Your task to perform on an android device: Turn on the flashlight Image 0: 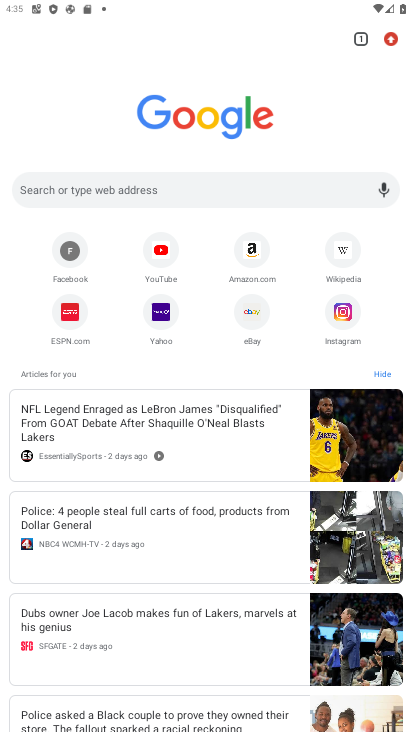
Step 0: press home button
Your task to perform on an android device: Turn on the flashlight Image 1: 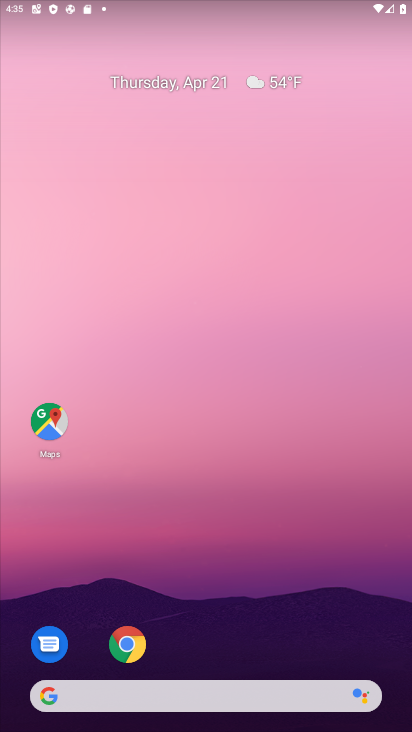
Step 1: drag from (227, 6) to (239, 310)
Your task to perform on an android device: Turn on the flashlight Image 2: 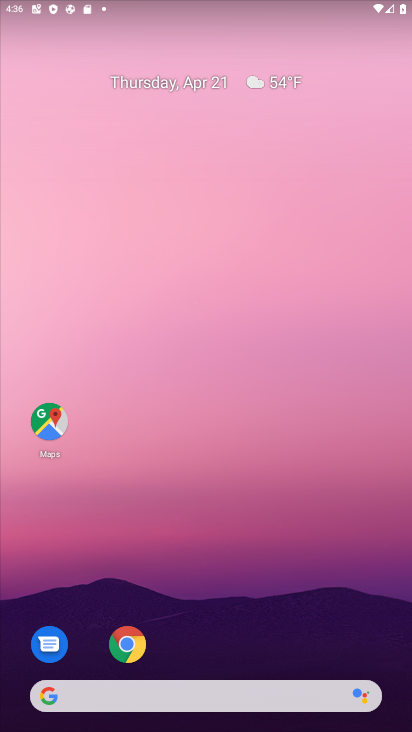
Step 2: drag from (223, 0) to (216, 410)
Your task to perform on an android device: Turn on the flashlight Image 3: 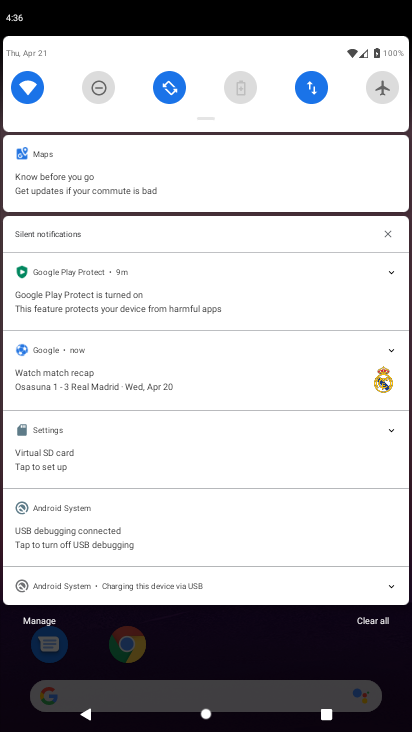
Step 3: click (361, 620)
Your task to perform on an android device: Turn on the flashlight Image 4: 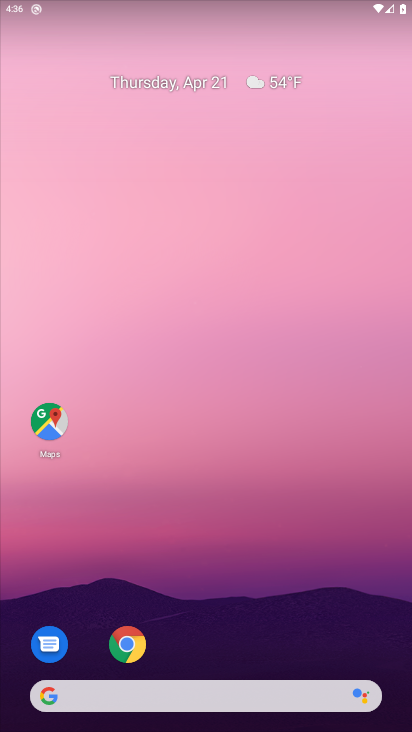
Step 4: drag from (200, 15) to (200, 473)
Your task to perform on an android device: Turn on the flashlight Image 5: 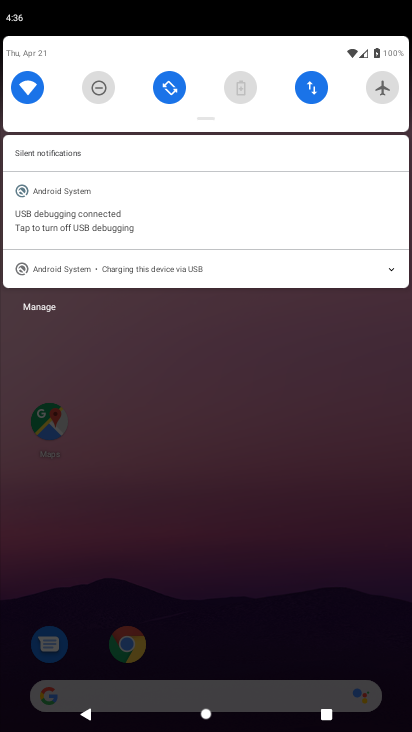
Step 5: drag from (194, 175) to (191, 454)
Your task to perform on an android device: Turn on the flashlight Image 6: 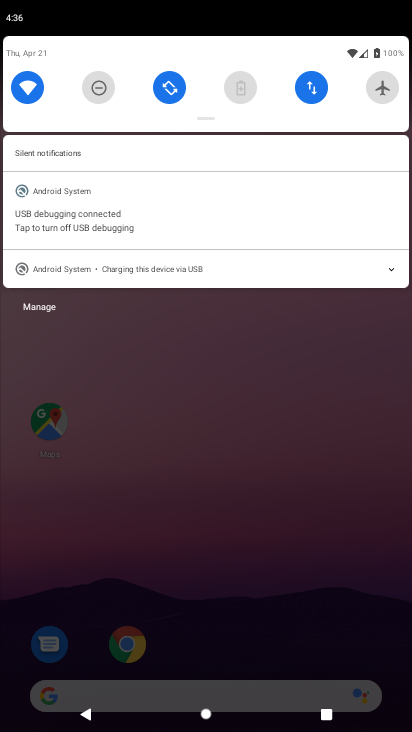
Step 6: drag from (199, 92) to (206, 499)
Your task to perform on an android device: Turn on the flashlight Image 7: 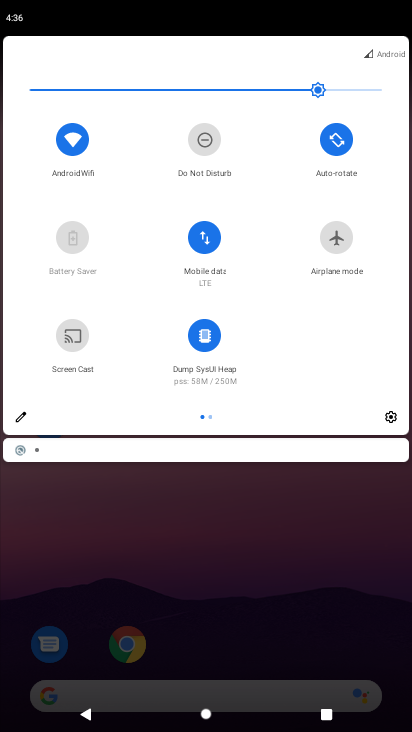
Step 7: drag from (341, 330) to (0, 394)
Your task to perform on an android device: Turn on the flashlight Image 8: 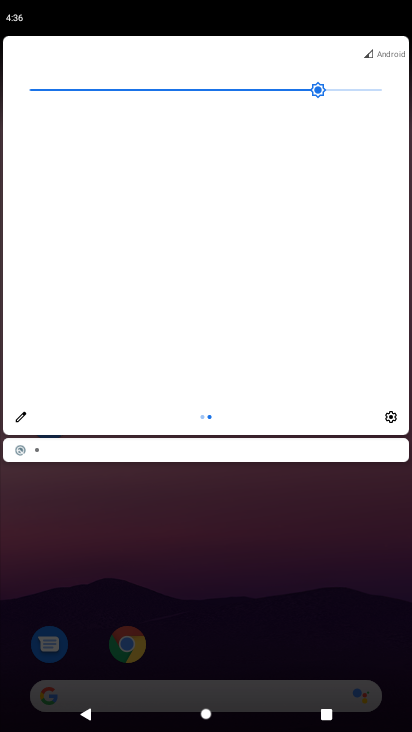
Step 8: click (24, 416)
Your task to perform on an android device: Turn on the flashlight Image 9: 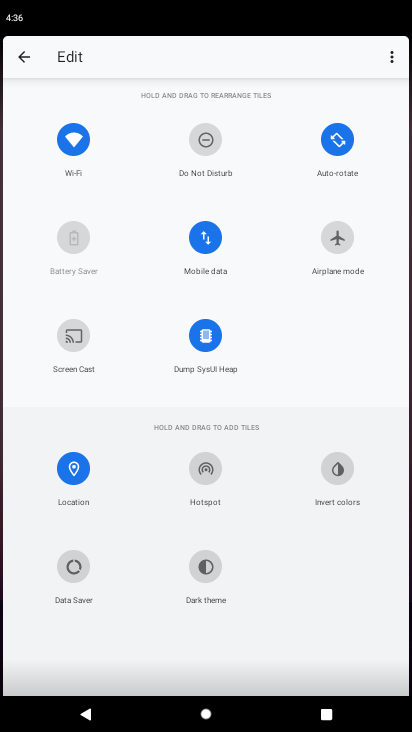
Step 9: task complete